Your task to perform on an android device: Go to notification settings Image 0: 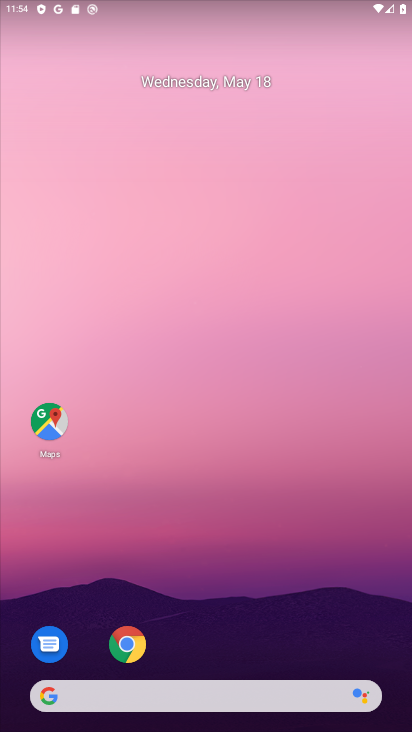
Step 0: drag from (322, 576) to (390, 168)
Your task to perform on an android device: Go to notification settings Image 1: 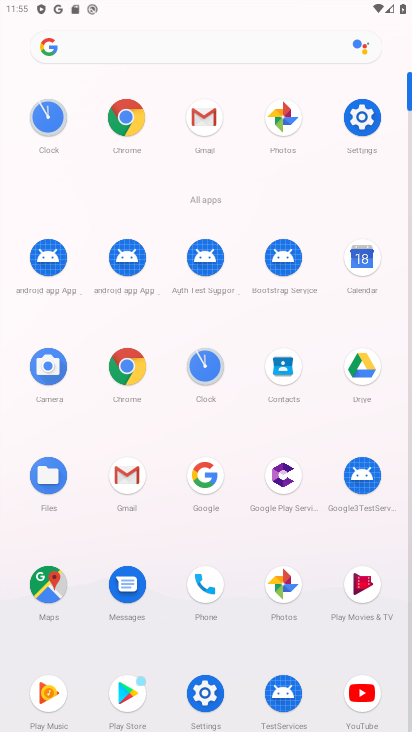
Step 1: click (203, 692)
Your task to perform on an android device: Go to notification settings Image 2: 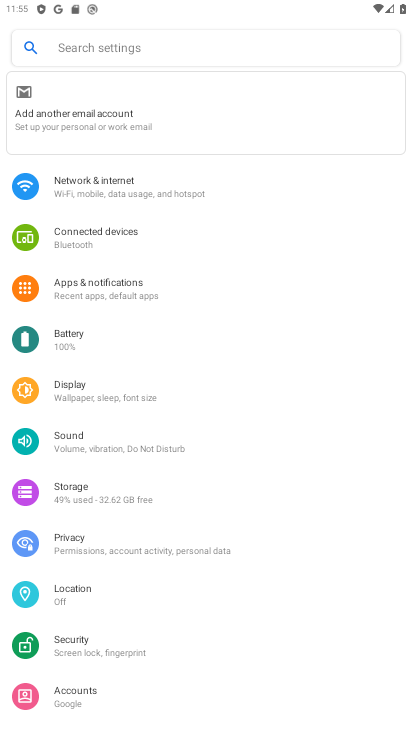
Step 2: click (141, 282)
Your task to perform on an android device: Go to notification settings Image 3: 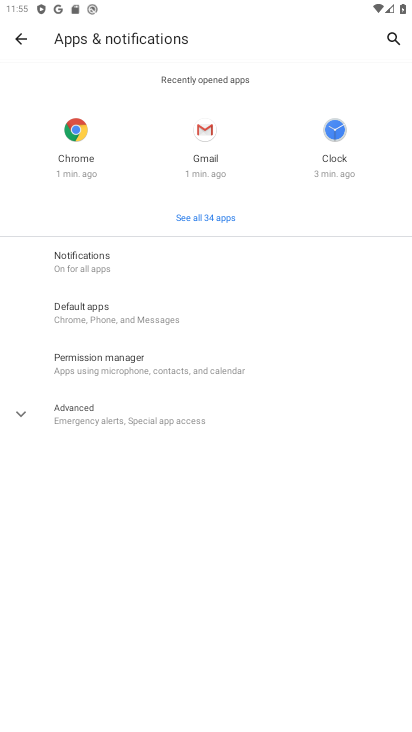
Step 3: click (152, 263)
Your task to perform on an android device: Go to notification settings Image 4: 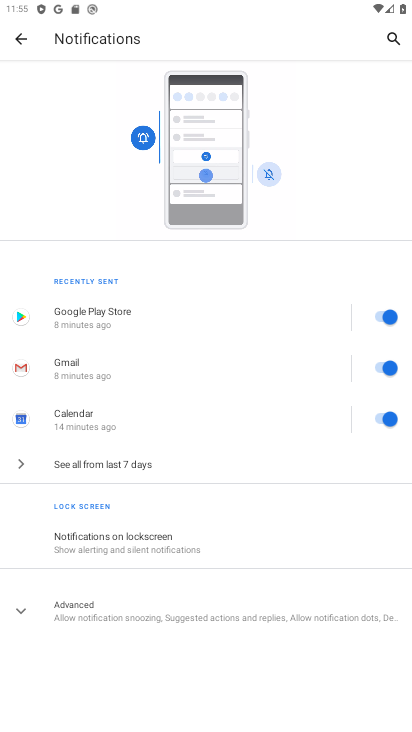
Step 4: task complete